Your task to perform on an android device: toggle translation in the chrome app Image 0: 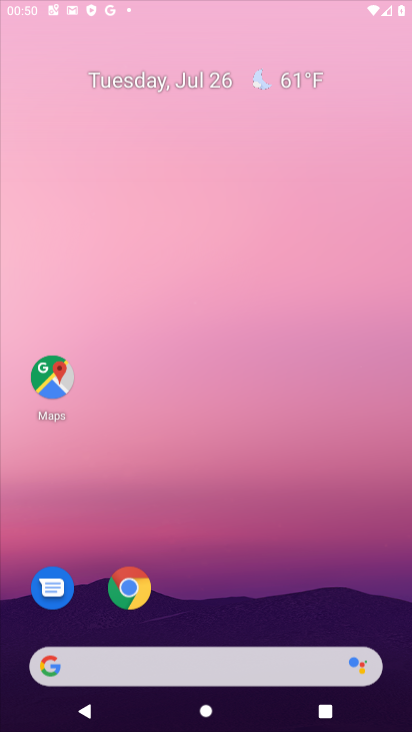
Step 0: press home button
Your task to perform on an android device: toggle translation in the chrome app Image 1: 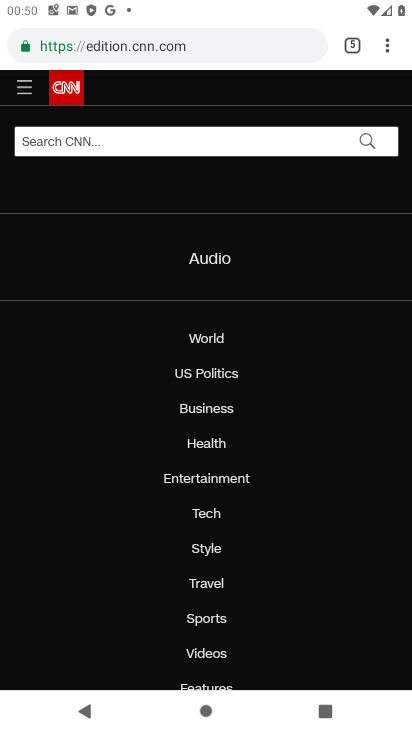
Step 1: drag from (227, 606) to (243, 6)
Your task to perform on an android device: toggle translation in the chrome app Image 2: 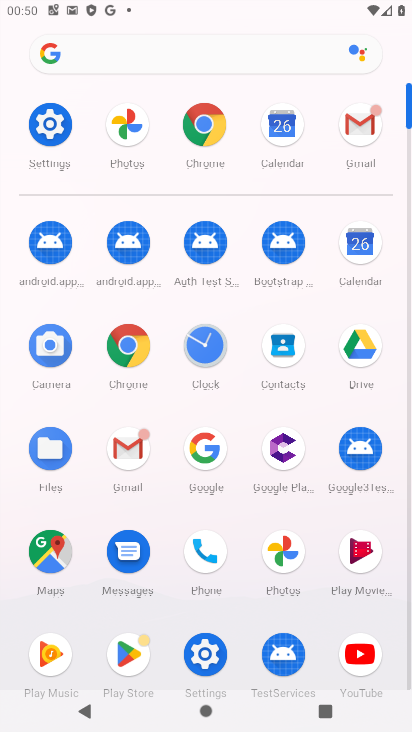
Step 2: click (201, 122)
Your task to perform on an android device: toggle translation in the chrome app Image 3: 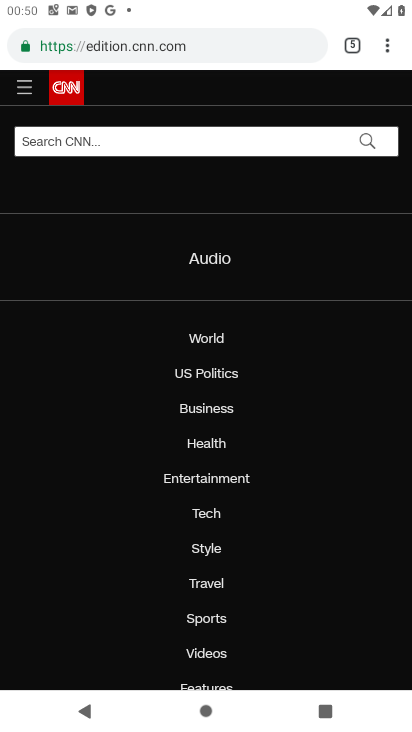
Step 3: click (390, 41)
Your task to perform on an android device: toggle translation in the chrome app Image 4: 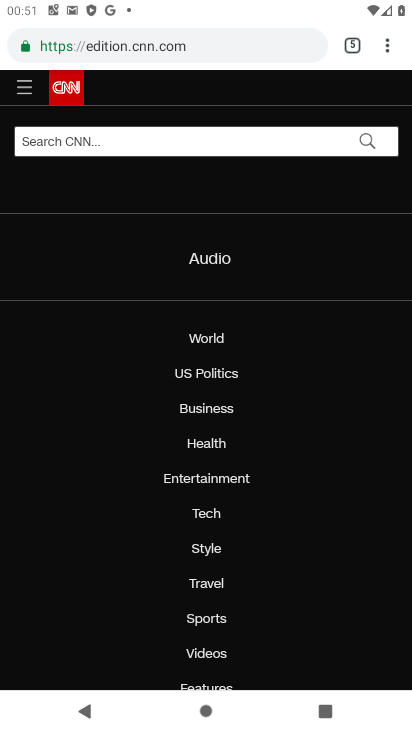
Step 4: click (384, 50)
Your task to perform on an android device: toggle translation in the chrome app Image 5: 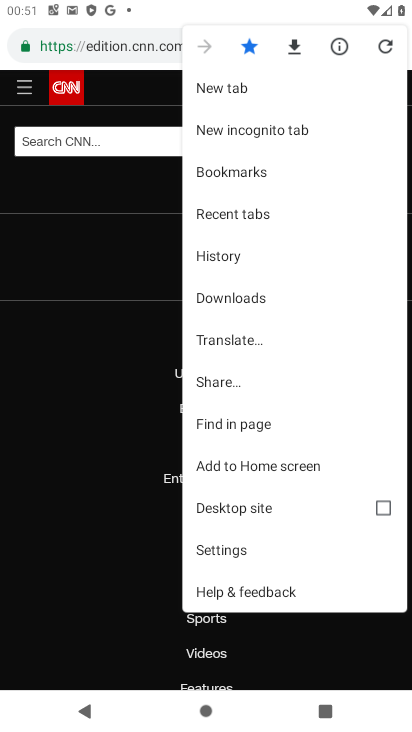
Step 5: click (245, 549)
Your task to perform on an android device: toggle translation in the chrome app Image 6: 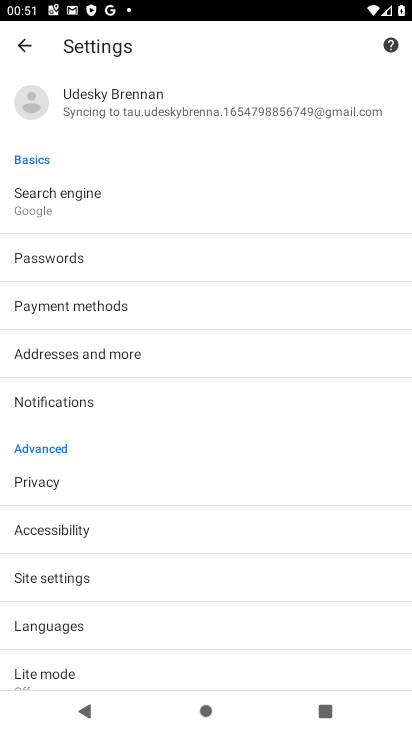
Step 6: click (98, 626)
Your task to perform on an android device: toggle translation in the chrome app Image 7: 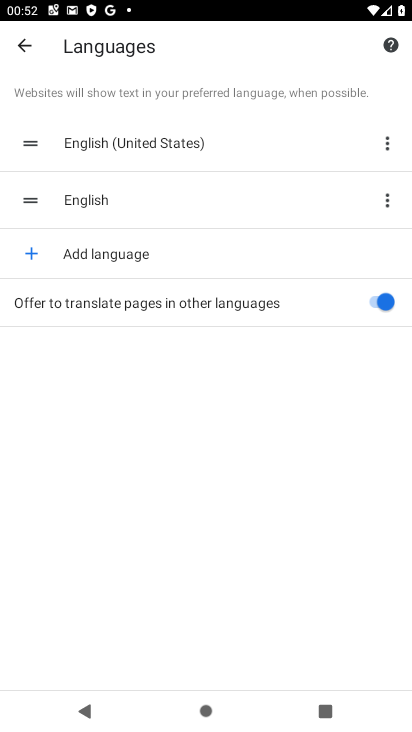
Step 7: task complete